Your task to perform on an android device: create a new album in the google photos Image 0: 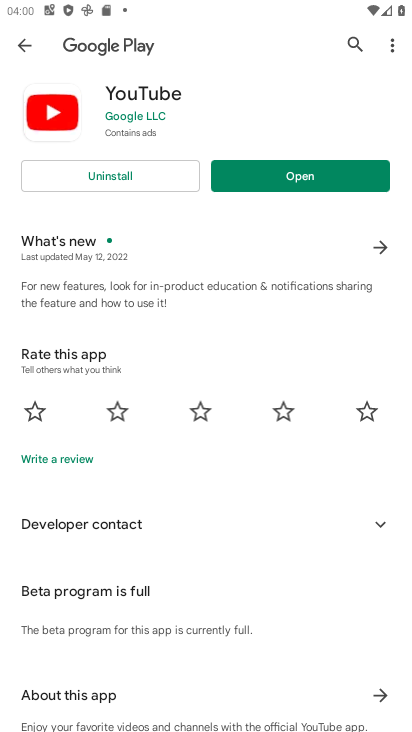
Step 0: press home button
Your task to perform on an android device: create a new album in the google photos Image 1: 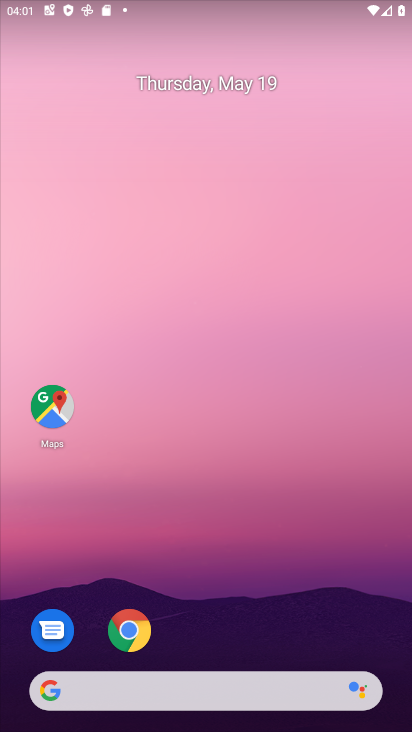
Step 1: drag from (394, 665) to (342, 39)
Your task to perform on an android device: create a new album in the google photos Image 2: 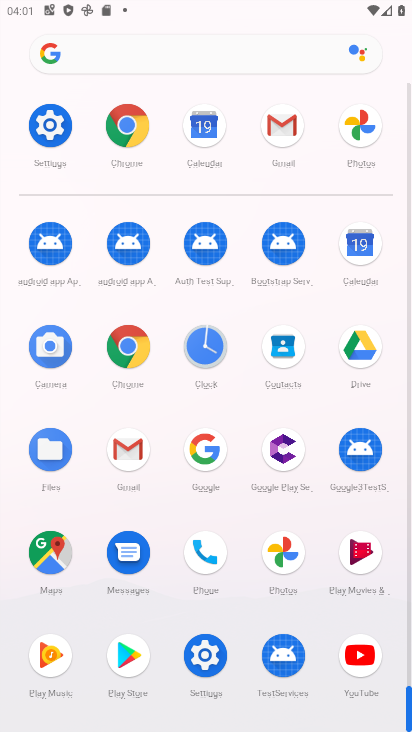
Step 2: click (283, 548)
Your task to perform on an android device: create a new album in the google photos Image 3: 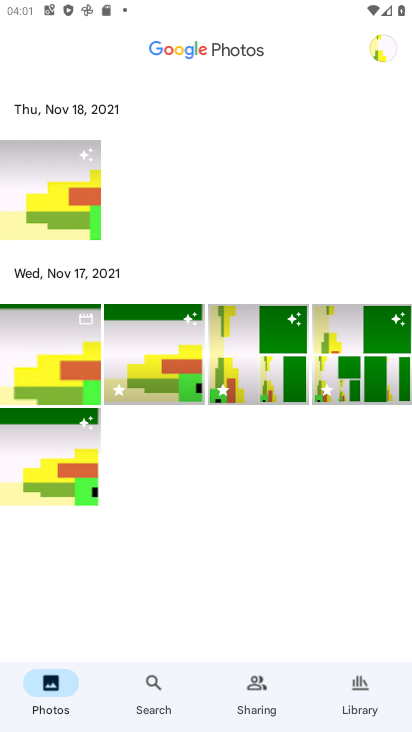
Step 3: click (354, 682)
Your task to perform on an android device: create a new album in the google photos Image 4: 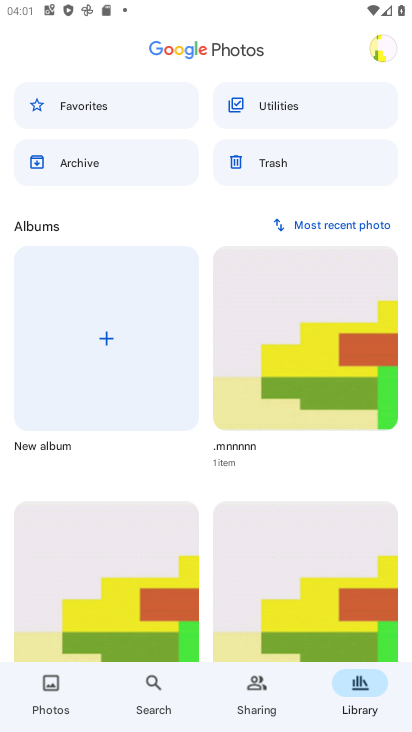
Step 4: click (106, 336)
Your task to perform on an android device: create a new album in the google photos Image 5: 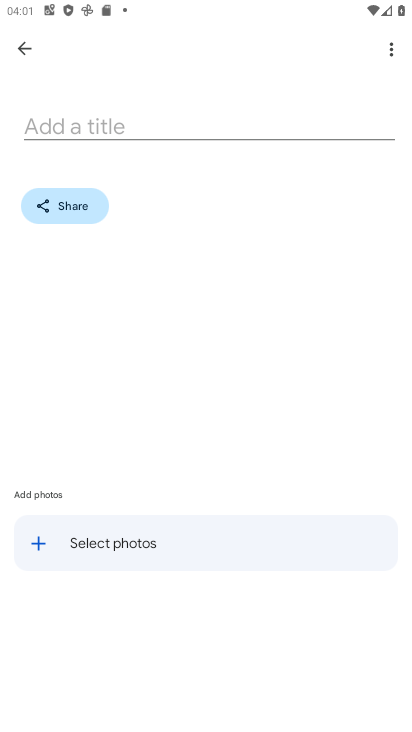
Step 5: click (119, 125)
Your task to perform on an android device: create a new album in the google photos Image 6: 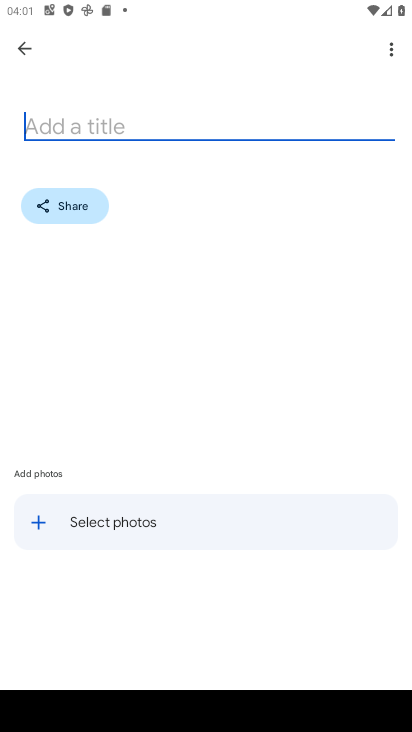
Step 6: type "khkggf"
Your task to perform on an android device: create a new album in the google photos Image 7: 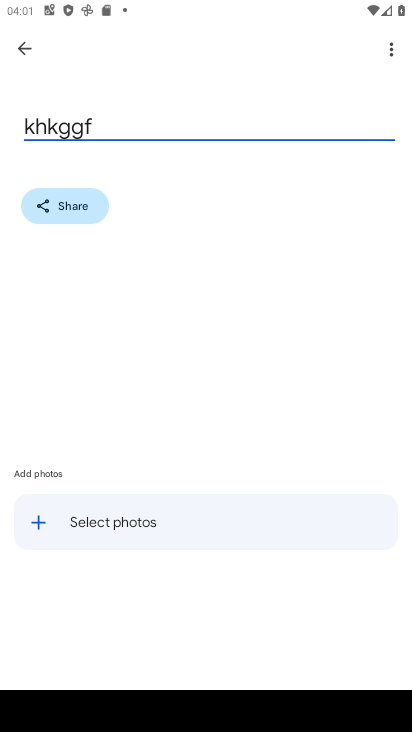
Step 7: click (34, 522)
Your task to perform on an android device: create a new album in the google photos Image 8: 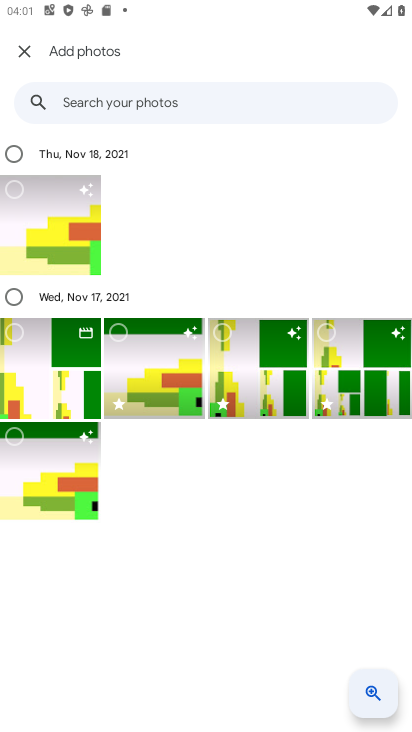
Step 8: click (122, 338)
Your task to perform on an android device: create a new album in the google photos Image 9: 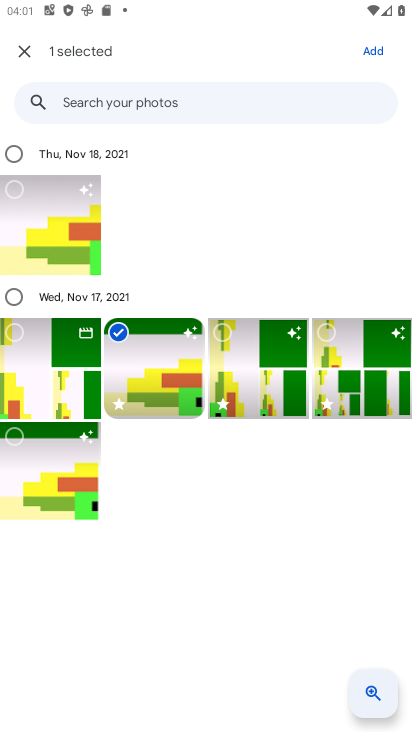
Step 9: click (323, 332)
Your task to perform on an android device: create a new album in the google photos Image 10: 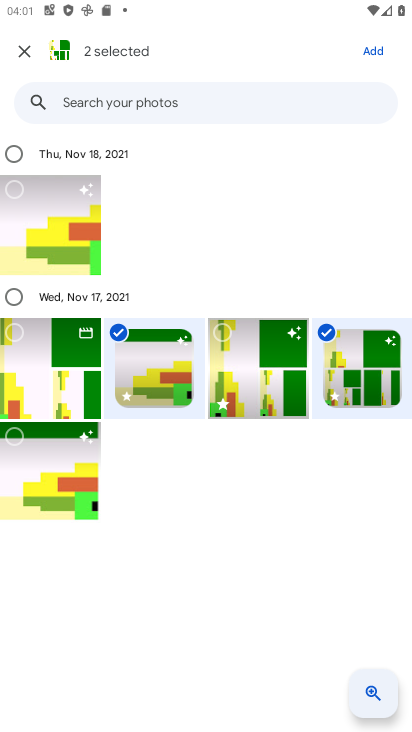
Step 10: click (362, 49)
Your task to perform on an android device: create a new album in the google photos Image 11: 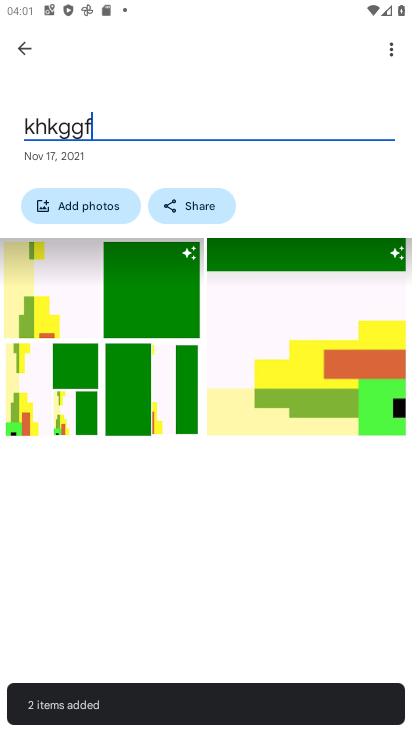
Step 11: task complete